Your task to perform on an android device: Go to eBay Image 0: 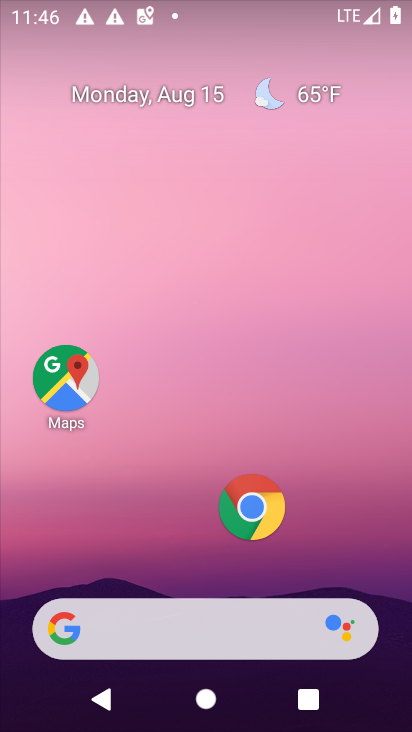
Step 0: click (254, 509)
Your task to perform on an android device: Go to eBay Image 1: 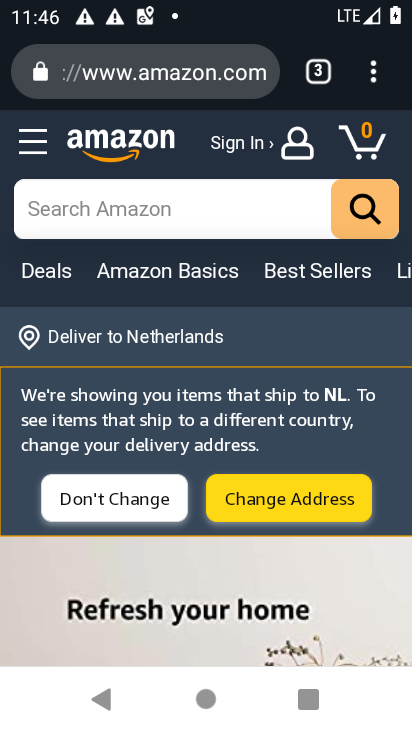
Step 1: click (378, 66)
Your task to perform on an android device: Go to eBay Image 2: 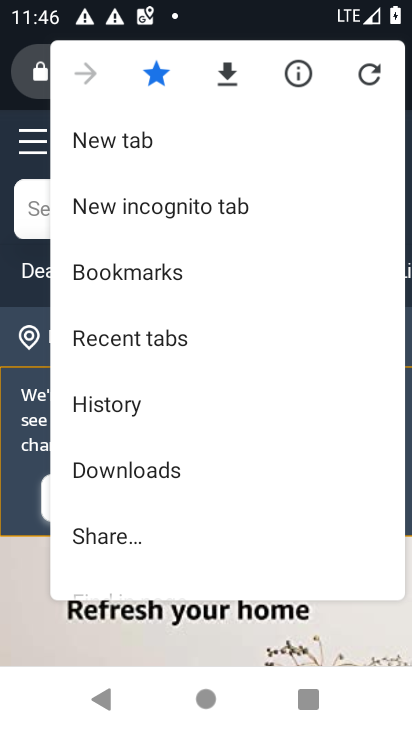
Step 2: click (118, 142)
Your task to perform on an android device: Go to eBay Image 3: 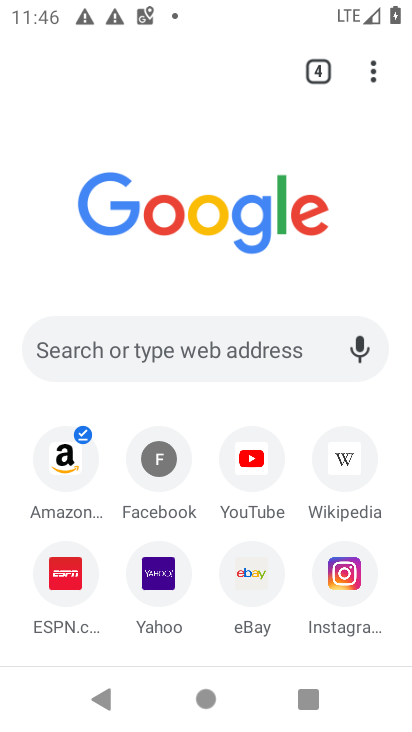
Step 3: click (258, 573)
Your task to perform on an android device: Go to eBay Image 4: 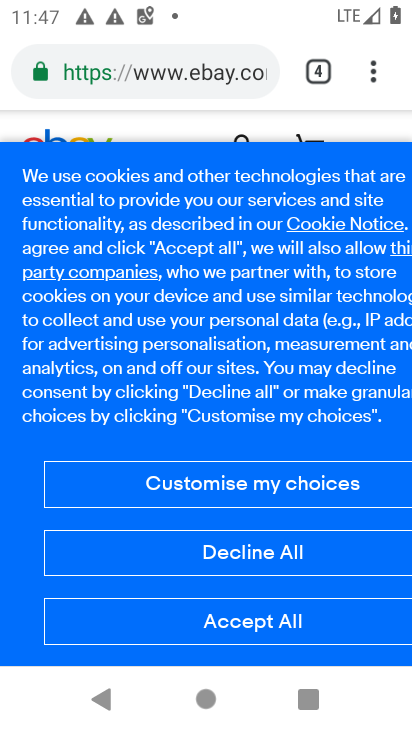
Step 4: click (274, 610)
Your task to perform on an android device: Go to eBay Image 5: 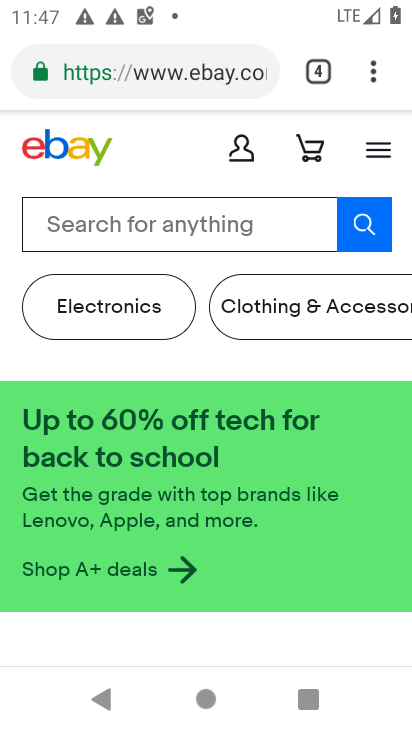
Step 5: task complete